Your task to perform on an android device: check out phone information Image 0: 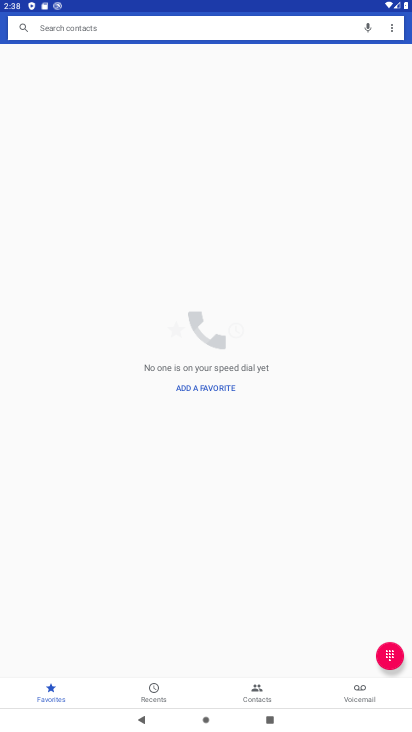
Step 0: press back button
Your task to perform on an android device: check out phone information Image 1: 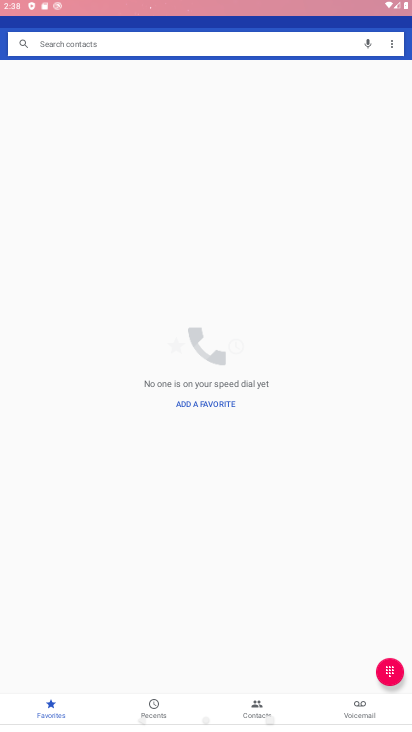
Step 1: press back button
Your task to perform on an android device: check out phone information Image 2: 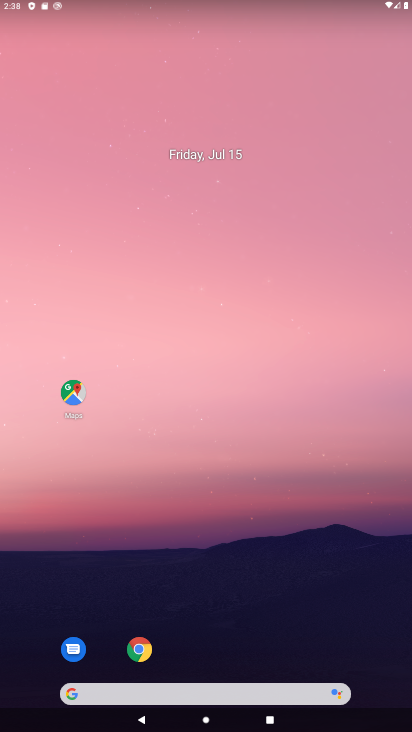
Step 2: drag from (285, 635) to (218, 282)
Your task to perform on an android device: check out phone information Image 3: 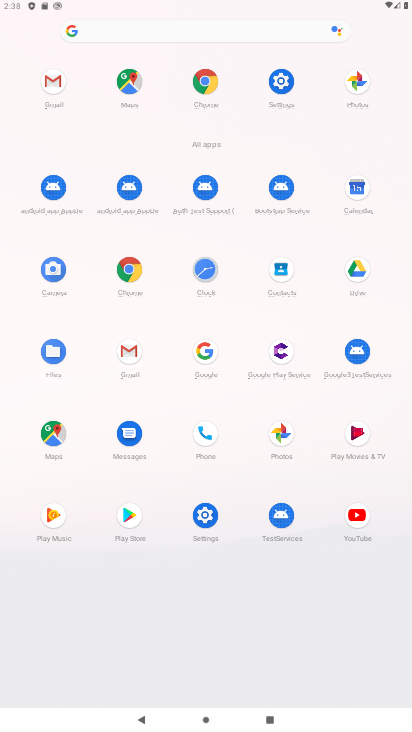
Step 3: click (202, 519)
Your task to perform on an android device: check out phone information Image 4: 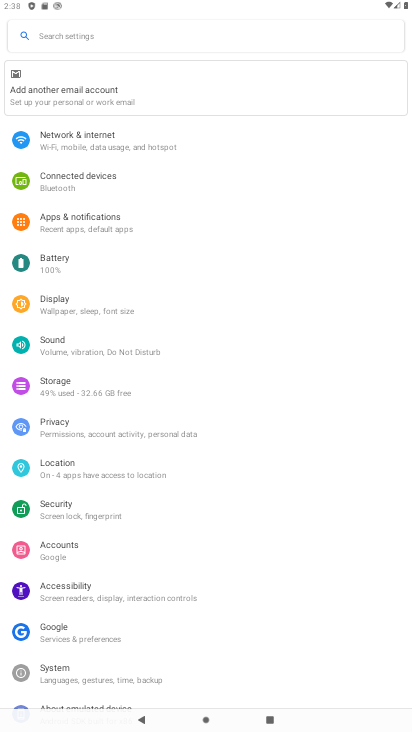
Step 4: click (203, 519)
Your task to perform on an android device: check out phone information Image 5: 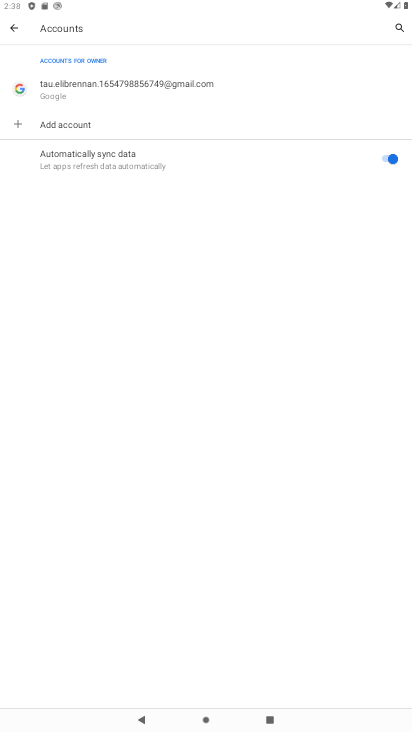
Step 5: click (14, 32)
Your task to perform on an android device: check out phone information Image 6: 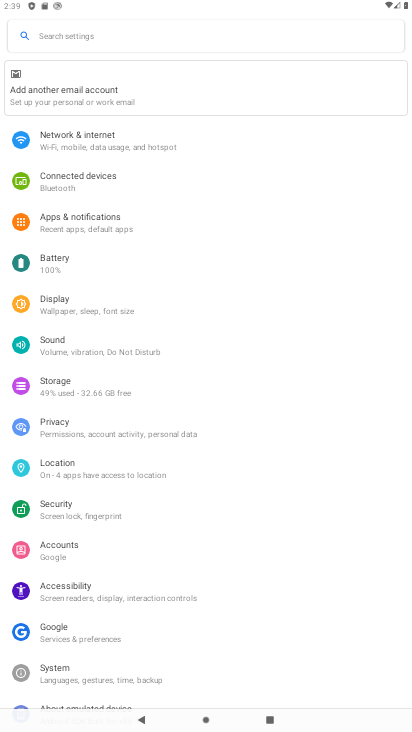
Step 6: drag from (82, 575) to (82, 292)
Your task to perform on an android device: check out phone information Image 7: 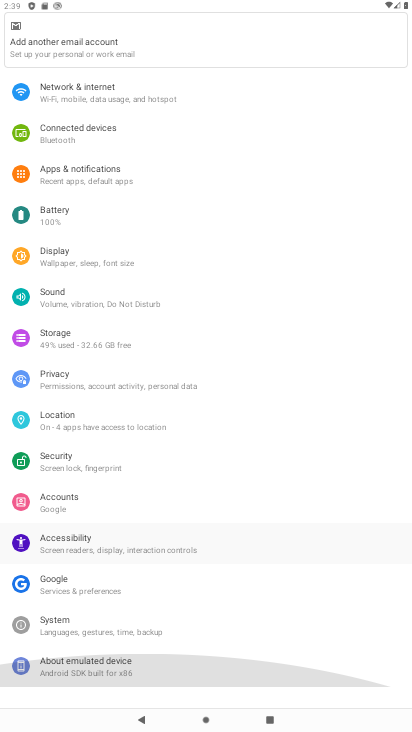
Step 7: drag from (85, 709) to (116, 394)
Your task to perform on an android device: check out phone information Image 8: 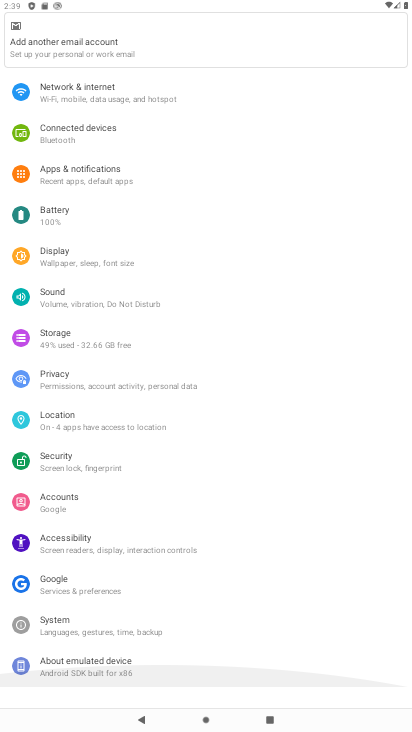
Step 8: drag from (91, 502) to (98, 276)
Your task to perform on an android device: check out phone information Image 9: 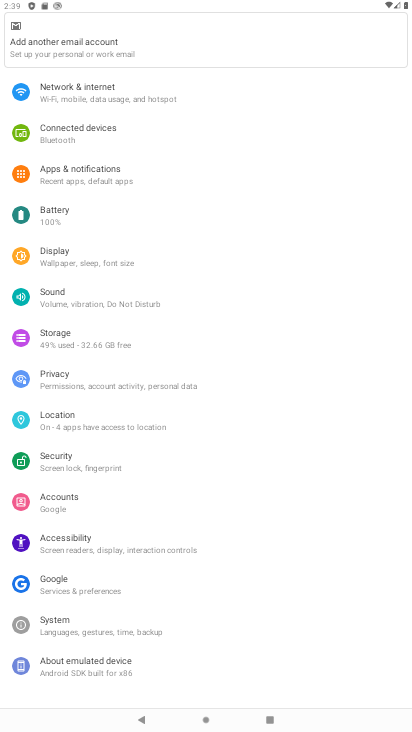
Step 9: click (86, 677)
Your task to perform on an android device: check out phone information Image 10: 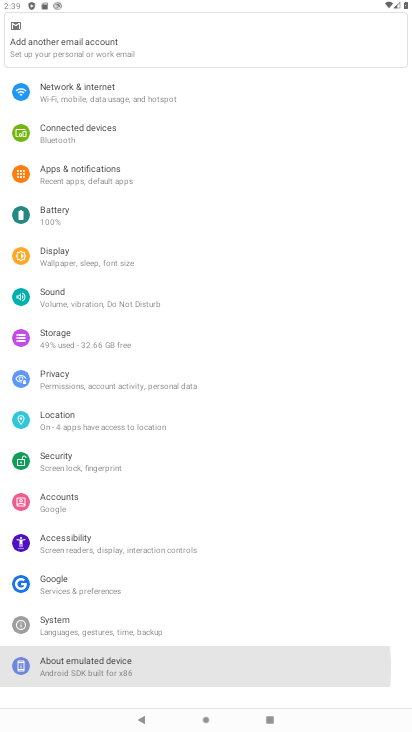
Step 10: click (86, 676)
Your task to perform on an android device: check out phone information Image 11: 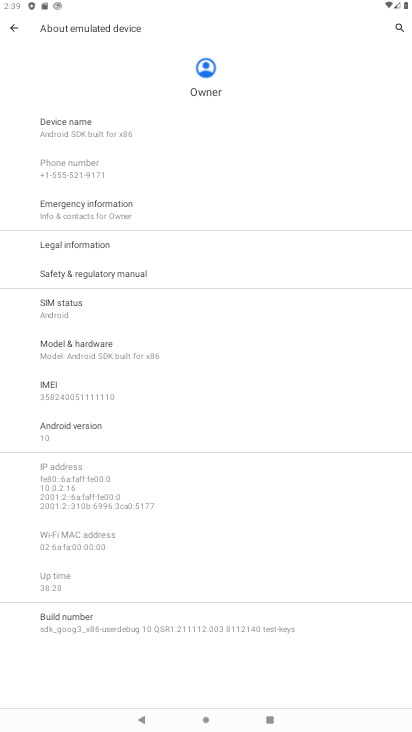
Step 11: task complete